Your task to perform on an android device: Open Amazon Image 0: 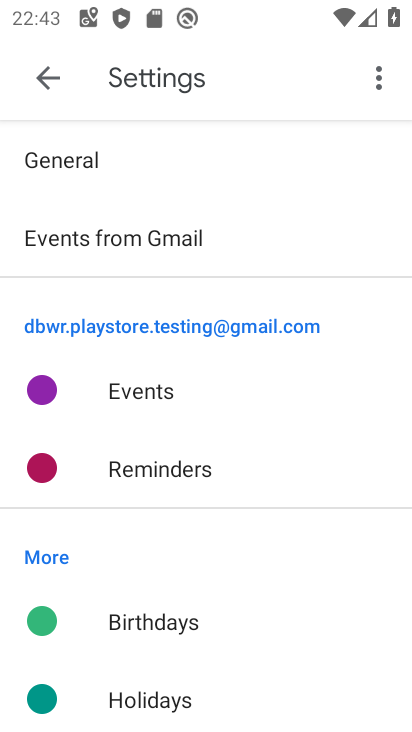
Step 0: press home button
Your task to perform on an android device: Open Amazon Image 1: 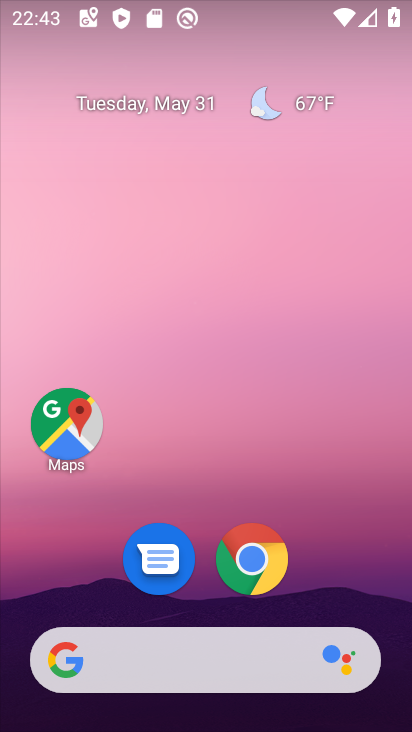
Step 1: click (255, 560)
Your task to perform on an android device: Open Amazon Image 2: 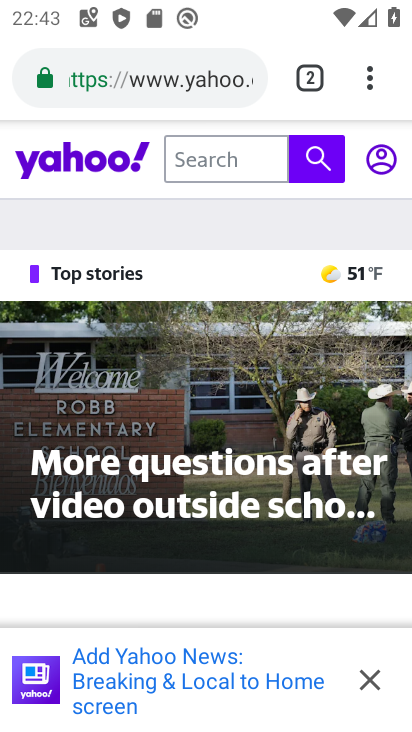
Step 2: press back button
Your task to perform on an android device: Open Amazon Image 3: 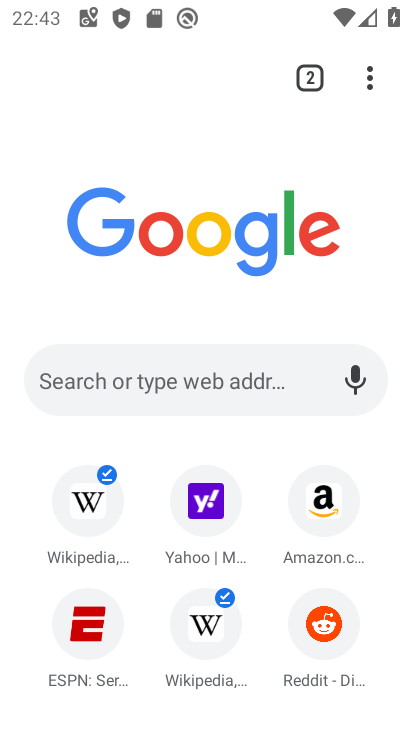
Step 3: click (323, 504)
Your task to perform on an android device: Open Amazon Image 4: 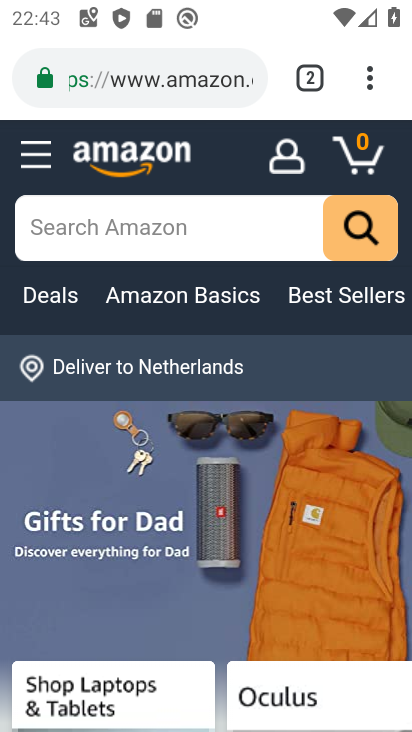
Step 4: task complete